Your task to perform on an android device: turn off sleep mode Image 0: 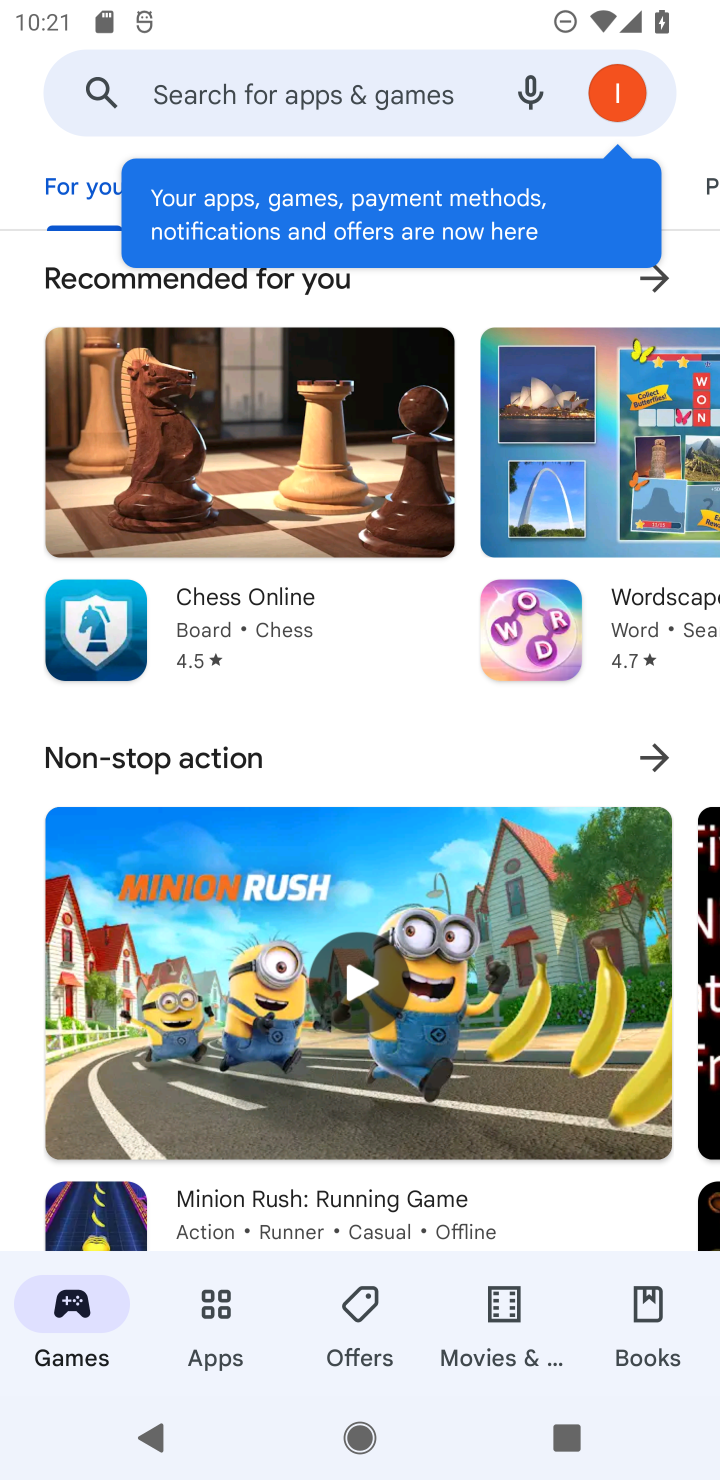
Step 0: press home button
Your task to perform on an android device: turn off sleep mode Image 1: 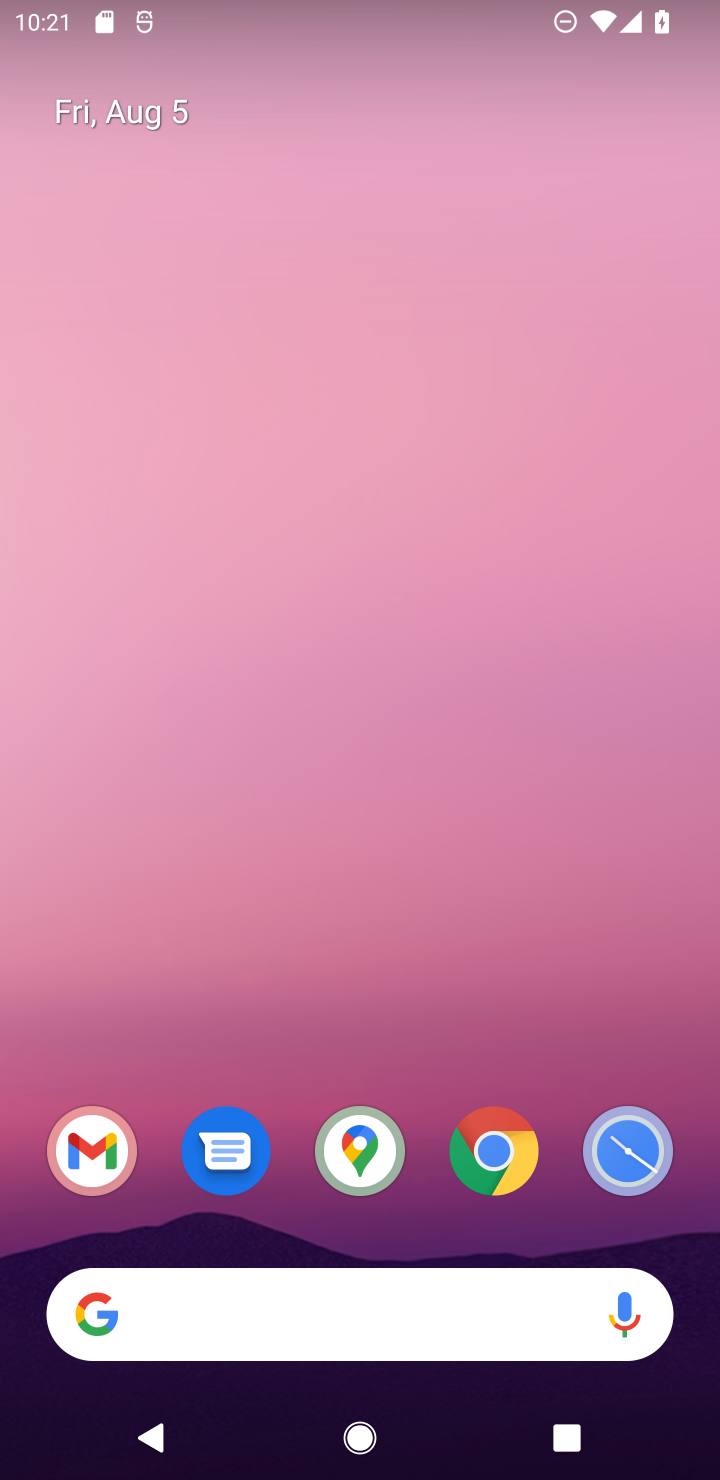
Step 1: drag from (374, 836) to (353, 757)
Your task to perform on an android device: turn off sleep mode Image 2: 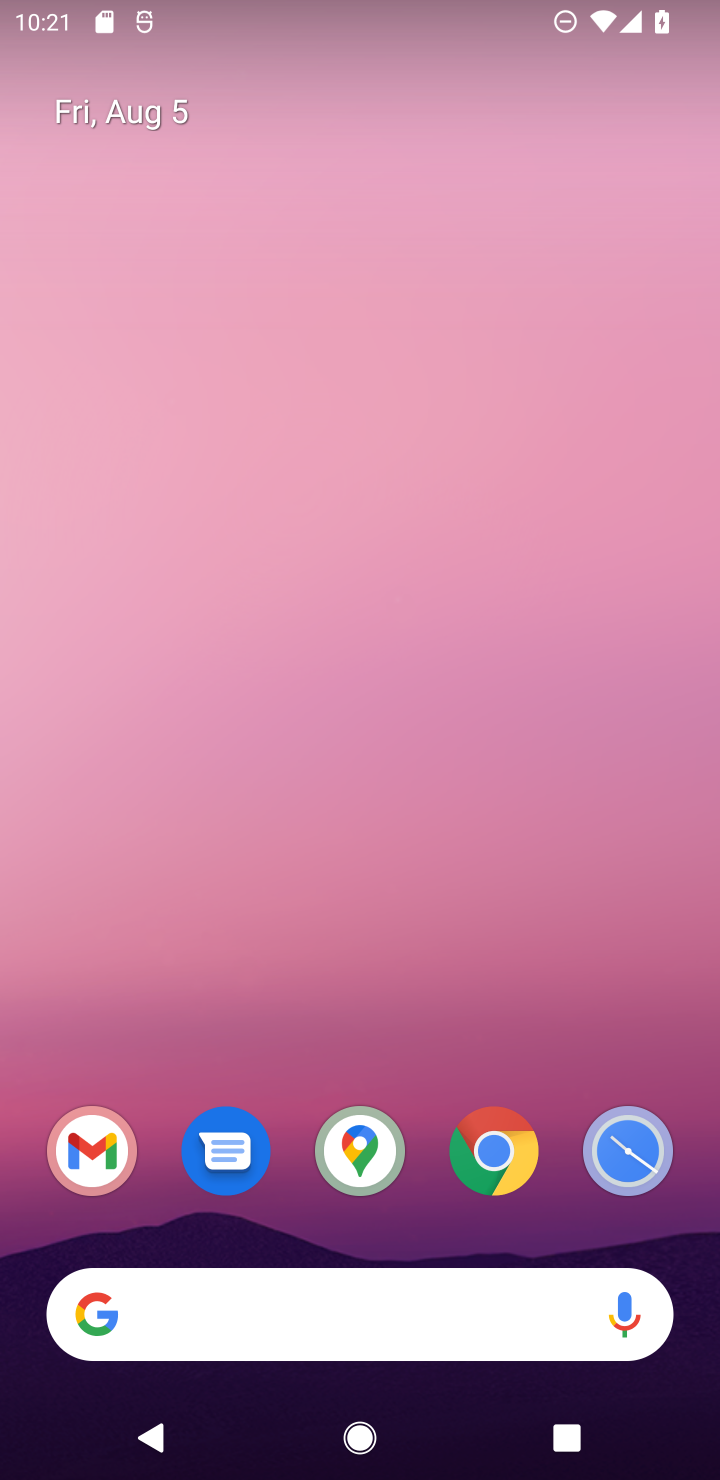
Step 2: drag from (402, 1208) to (649, 77)
Your task to perform on an android device: turn off sleep mode Image 3: 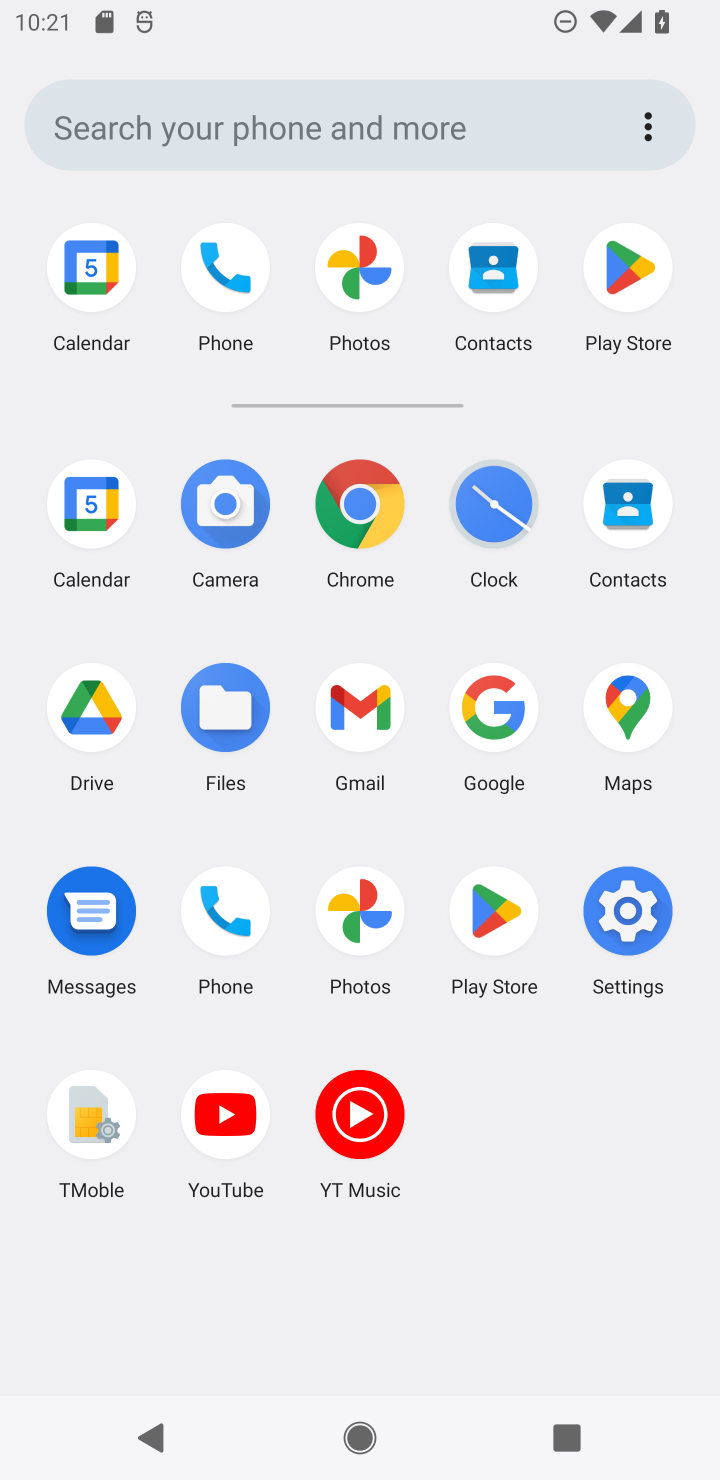
Step 3: click (630, 890)
Your task to perform on an android device: turn off sleep mode Image 4: 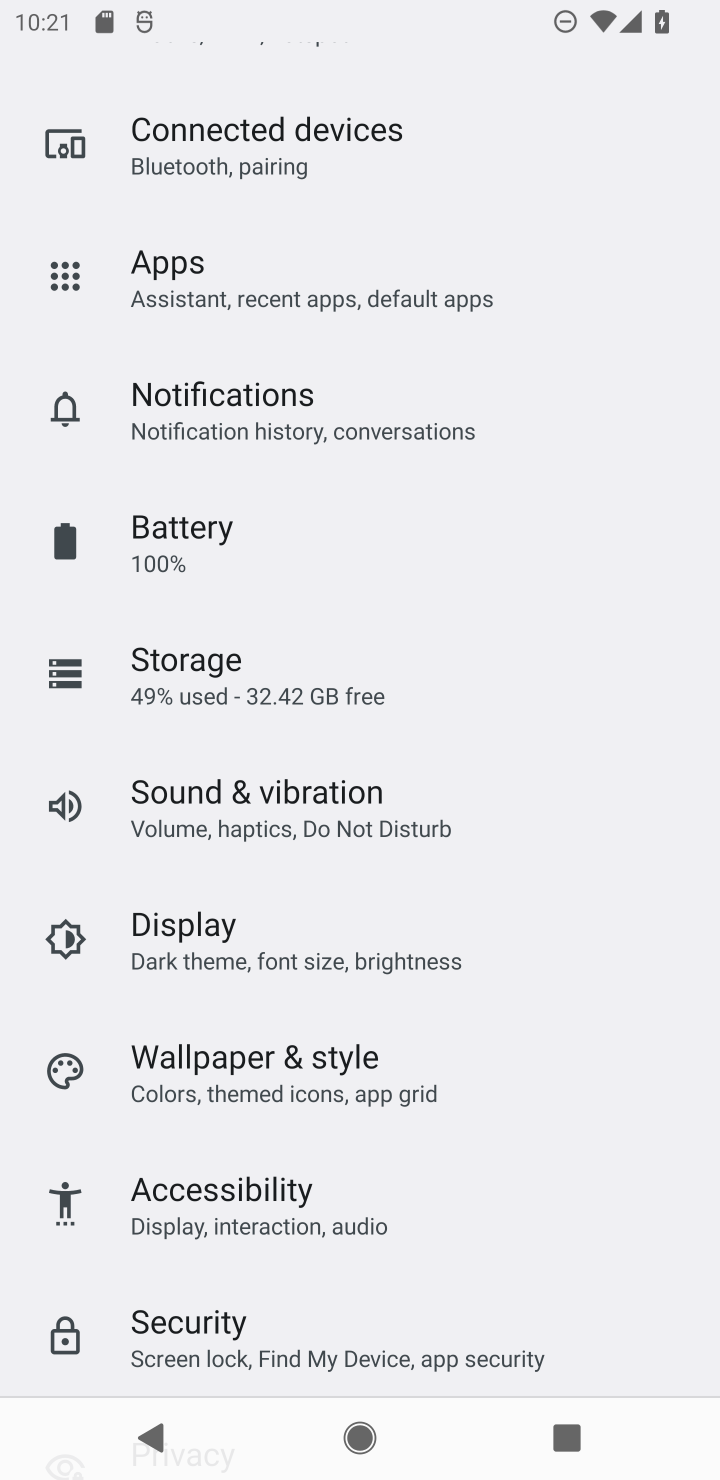
Step 4: task complete